Your task to perform on an android device: Open network settings Image 0: 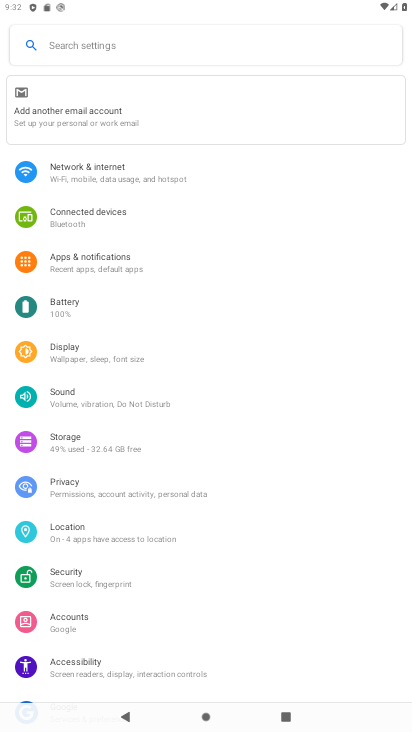
Step 0: click (143, 179)
Your task to perform on an android device: Open network settings Image 1: 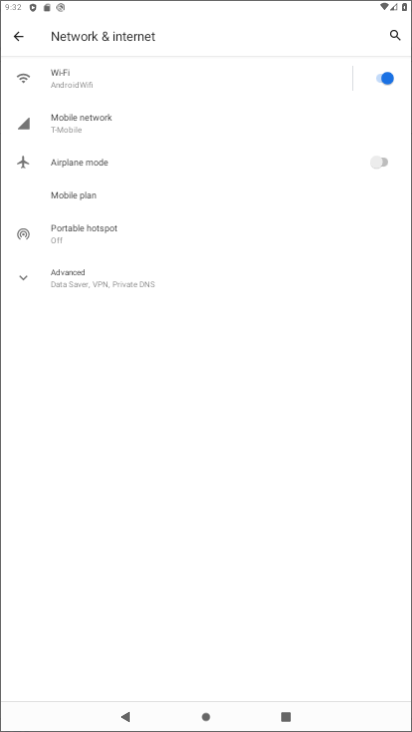
Step 1: task complete